Your task to perform on an android device: delete browsing data in the chrome app Image 0: 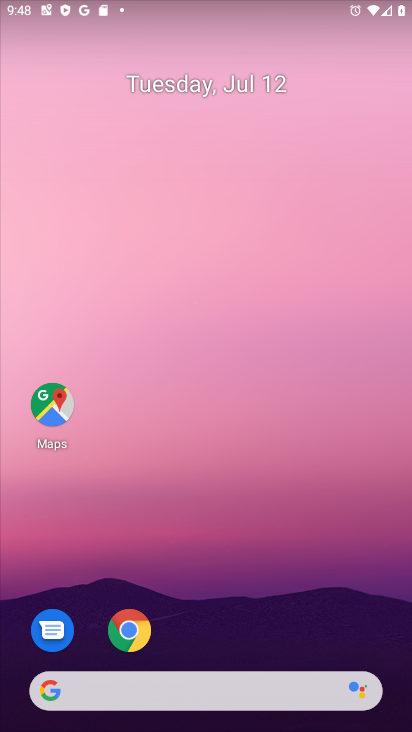
Step 0: click (132, 631)
Your task to perform on an android device: delete browsing data in the chrome app Image 1: 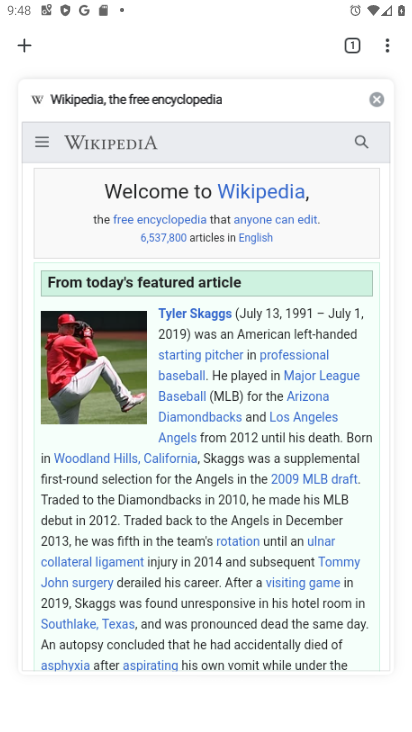
Step 1: click (385, 41)
Your task to perform on an android device: delete browsing data in the chrome app Image 2: 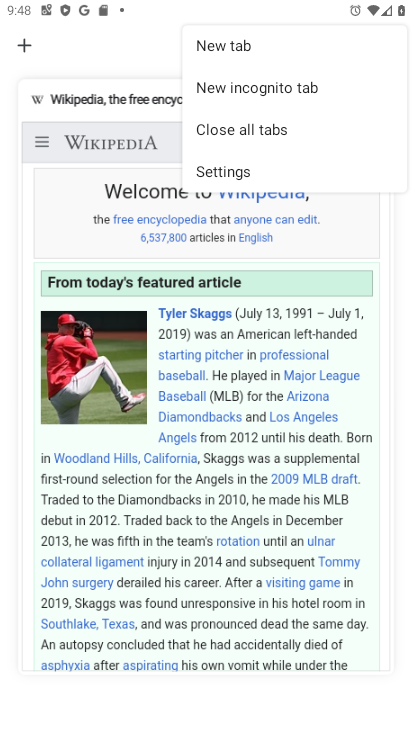
Step 2: click (235, 171)
Your task to perform on an android device: delete browsing data in the chrome app Image 3: 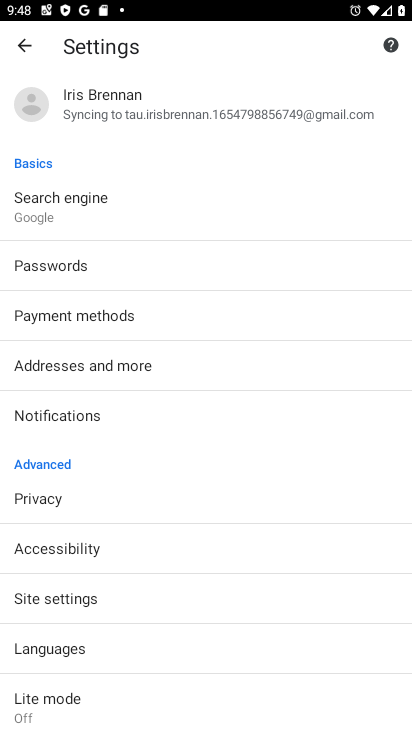
Step 3: drag from (60, 597) to (68, 376)
Your task to perform on an android device: delete browsing data in the chrome app Image 4: 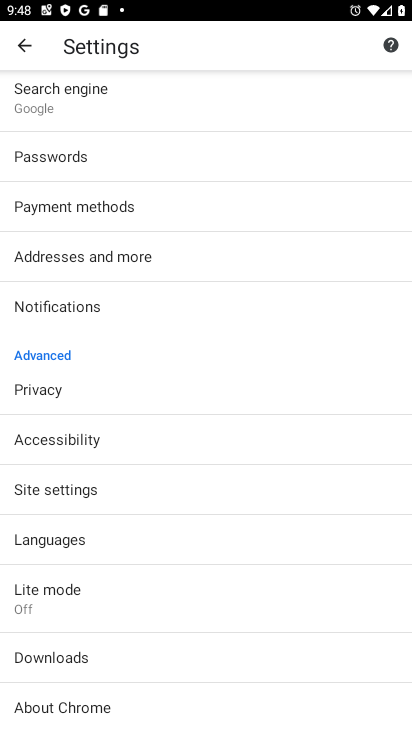
Step 4: click (46, 386)
Your task to perform on an android device: delete browsing data in the chrome app Image 5: 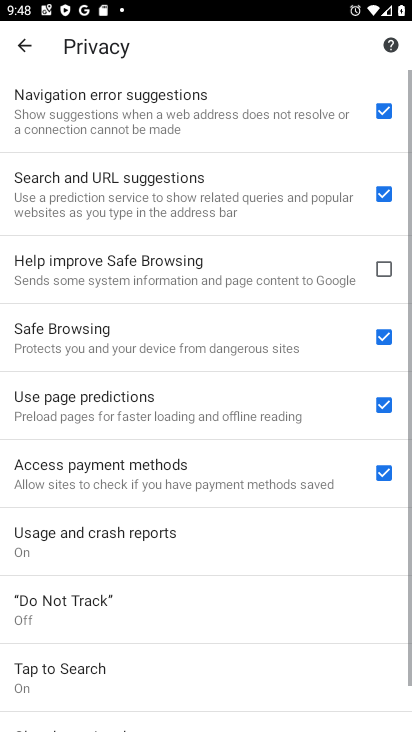
Step 5: drag from (163, 573) to (165, 100)
Your task to perform on an android device: delete browsing data in the chrome app Image 6: 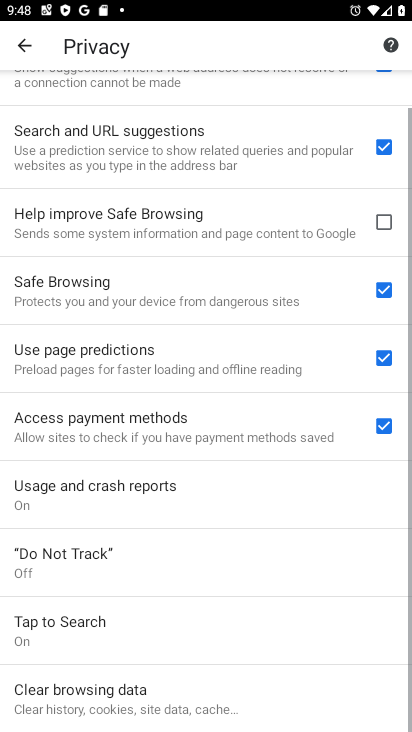
Step 6: click (103, 717)
Your task to perform on an android device: delete browsing data in the chrome app Image 7: 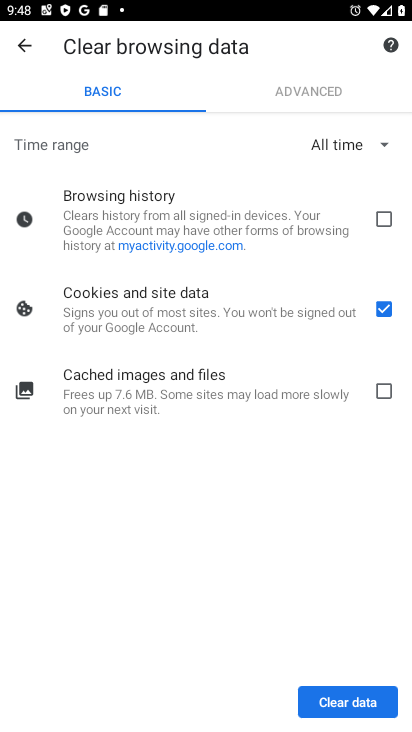
Step 7: click (380, 216)
Your task to perform on an android device: delete browsing data in the chrome app Image 8: 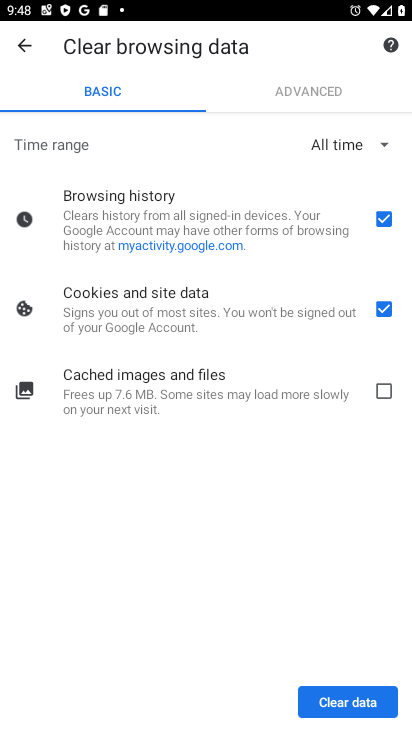
Step 8: click (386, 390)
Your task to perform on an android device: delete browsing data in the chrome app Image 9: 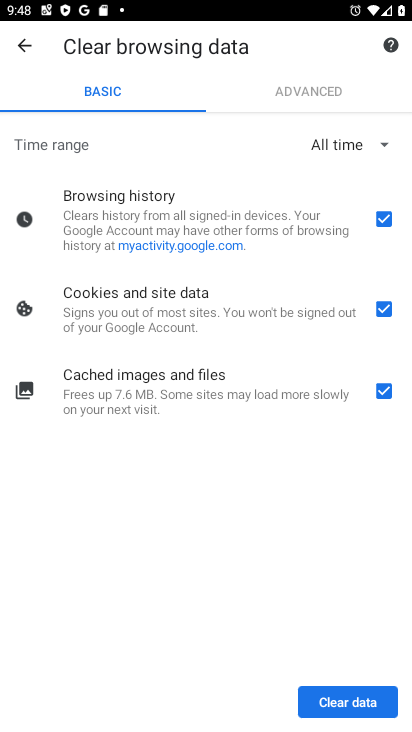
Step 9: click (343, 699)
Your task to perform on an android device: delete browsing data in the chrome app Image 10: 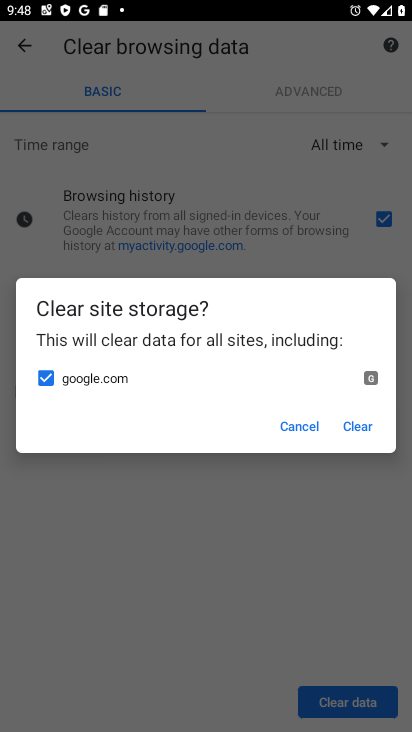
Step 10: click (351, 419)
Your task to perform on an android device: delete browsing data in the chrome app Image 11: 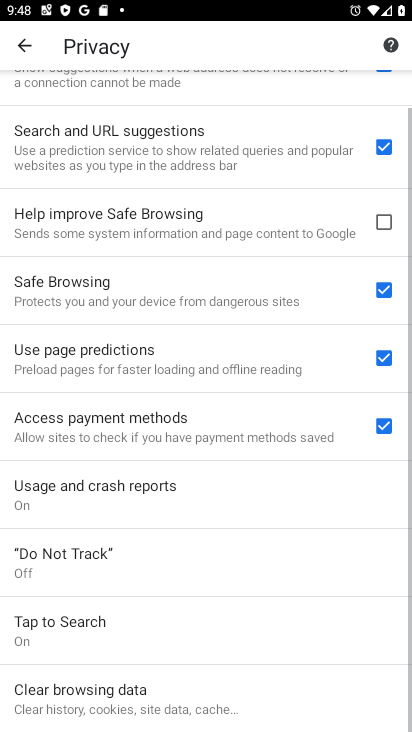
Step 11: task complete